Your task to perform on an android device: snooze an email in the gmail app Image 0: 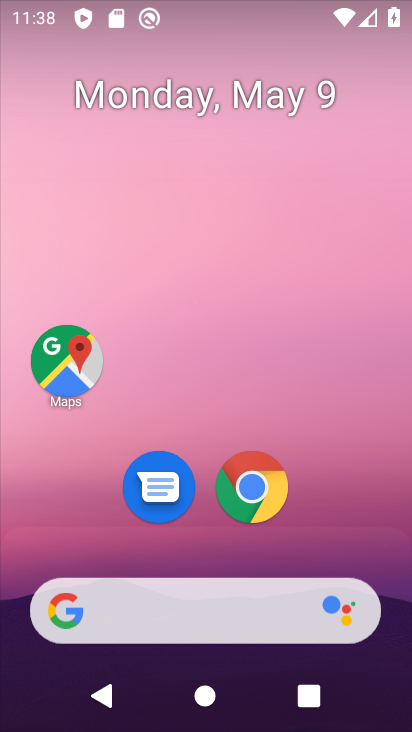
Step 0: drag from (384, 499) to (353, 157)
Your task to perform on an android device: snooze an email in the gmail app Image 1: 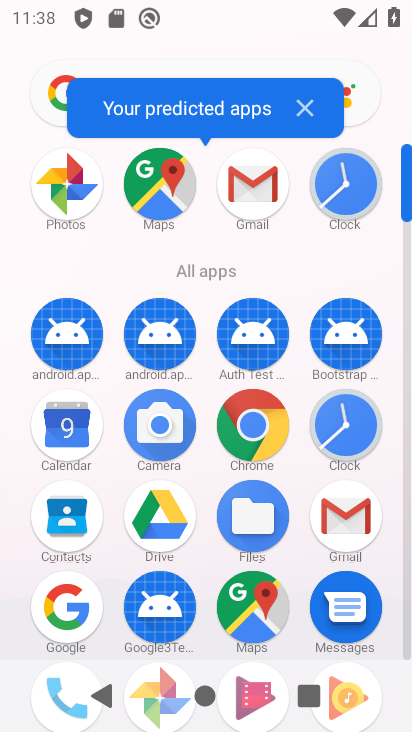
Step 1: click (343, 517)
Your task to perform on an android device: snooze an email in the gmail app Image 2: 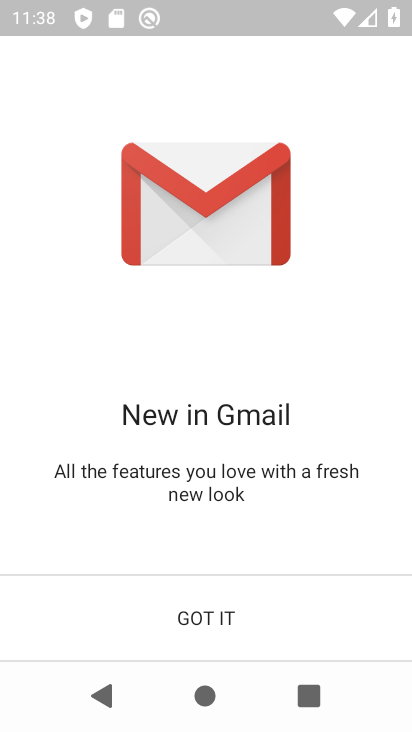
Step 2: click (212, 608)
Your task to perform on an android device: snooze an email in the gmail app Image 3: 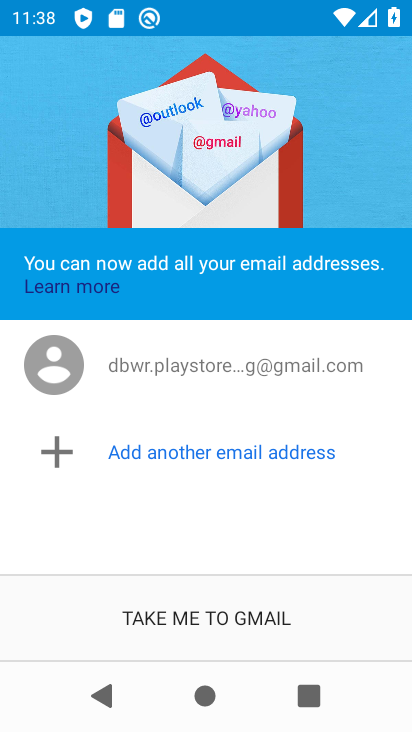
Step 3: click (212, 608)
Your task to perform on an android device: snooze an email in the gmail app Image 4: 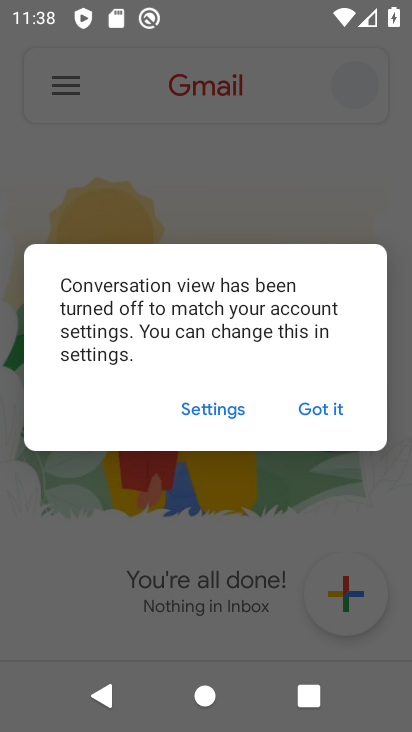
Step 4: click (313, 423)
Your task to perform on an android device: snooze an email in the gmail app Image 5: 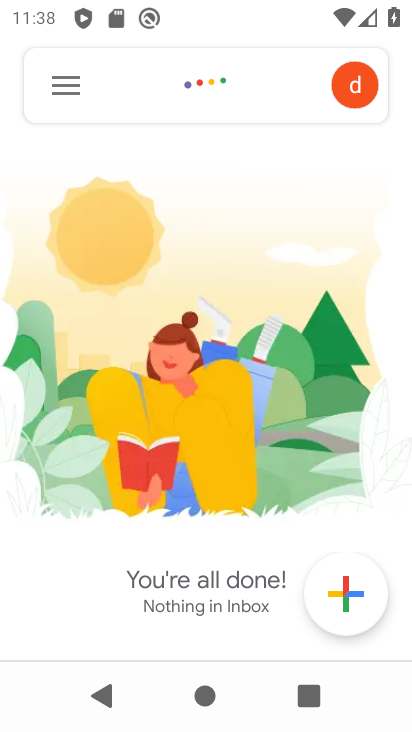
Step 5: click (60, 98)
Your task to perform on an android device: snooze an email in the gmail app Image 6: 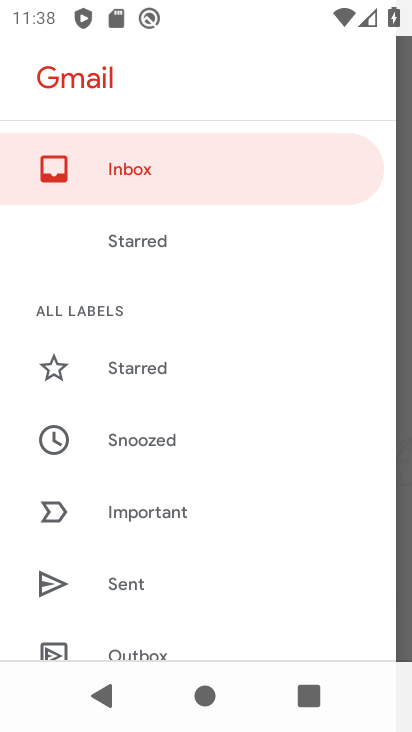
Step 6: drag from (130, 563) to (137, 447)
Your task to perform on an android device: snooze an email in the gmail app Image 7: 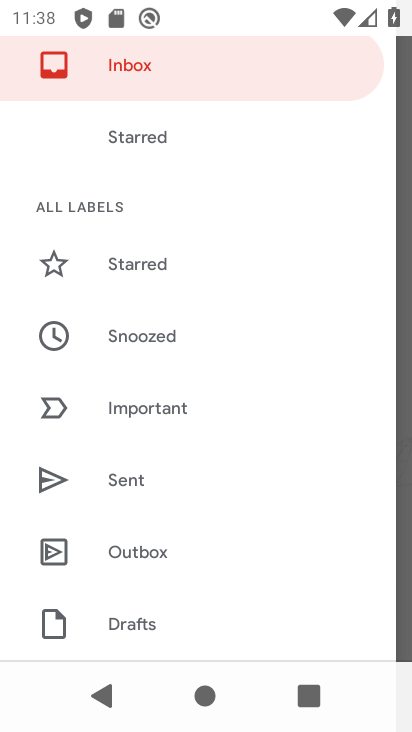
Step 7: click (163, 62)
Your task to perform on an android device: snooze an email in the gmail app Image 8: 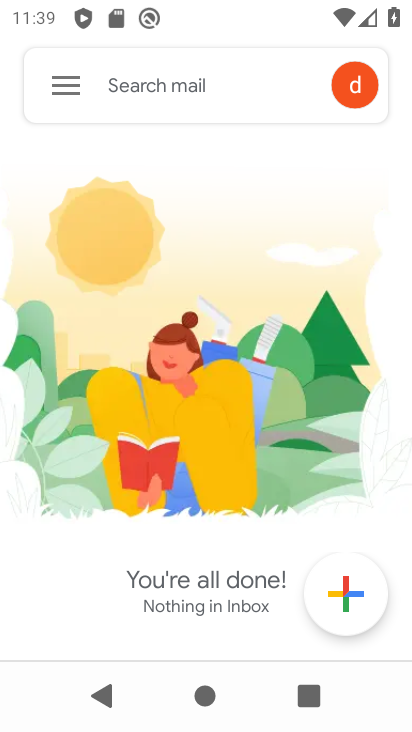
Step 8: task complete